Your task to perform on an android device: find snoozed emails in the gmail app Image 0: 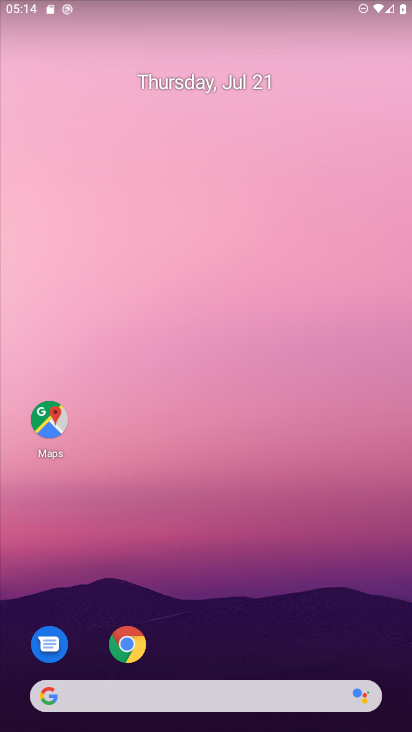
Step 0: click (149, 689)
Your task to perform on an android device: find snoozed emails in the gmail app Image 1: 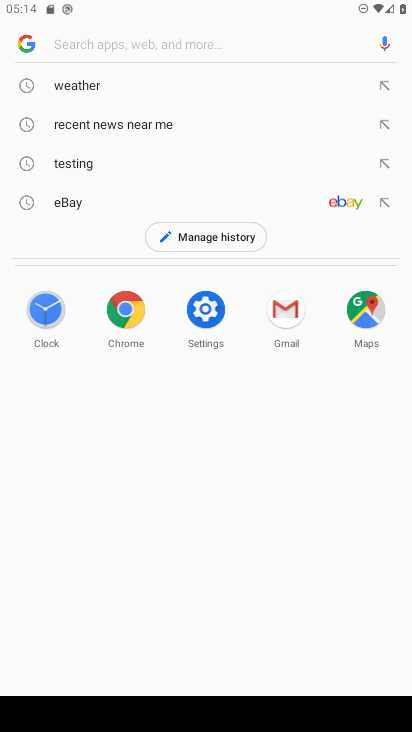
Step 1: click (26, 40)
Your task to perform on an android device: find snoozed emails in the gmail app Image 2: 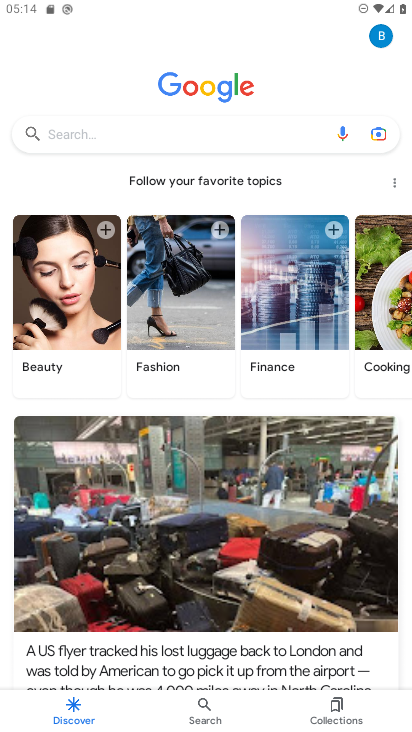
Step 2: press home button
Your task to perform on an android device: find snoozed emails in the gmail app Image 3: 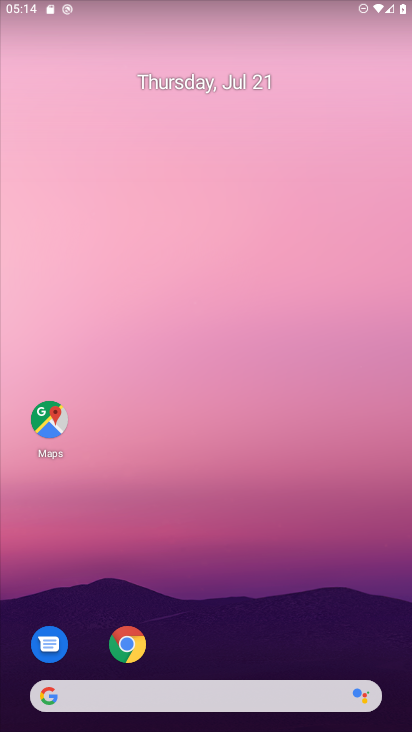
Step 3: drag from (220, 597) to (280, 71)
Your task to perform on an android device: find snoozed emails in the gmail app Image 4: 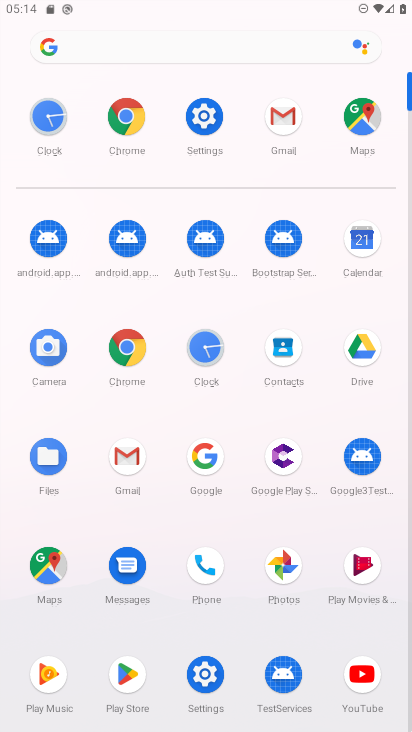
Step 4: click (283, 127)
Your task to perform on an android device: find snoozed emails in the gmail app Image 5: 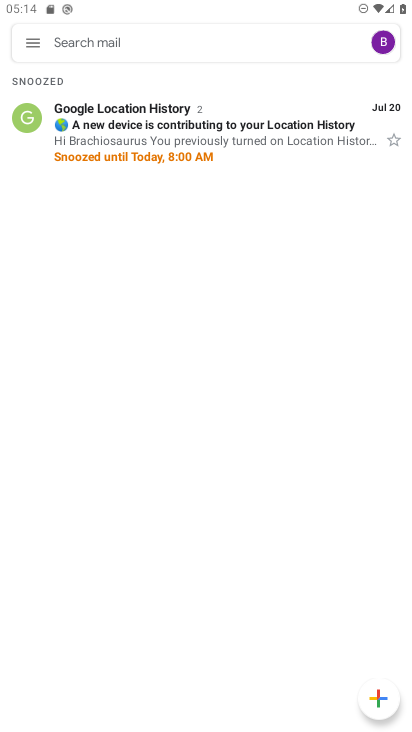
Step 5: click (41, 49)
Your task to perform on an android device: find snoozed emails in the gmail app Image 6: 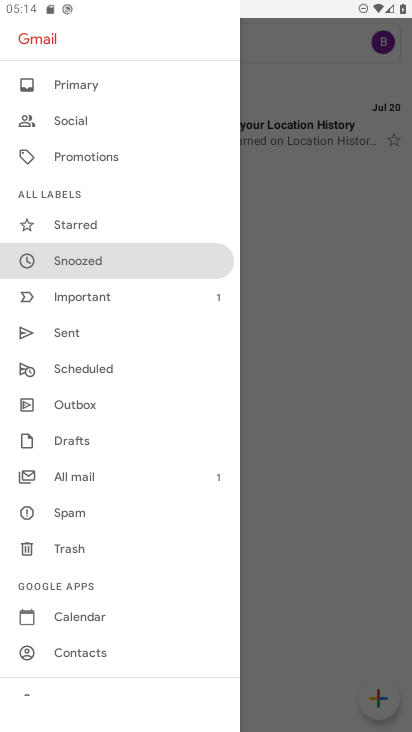
Step 6: click (80, 268)
Your task to perform on an android device: find snoozed emails in the gmail app Image 7: 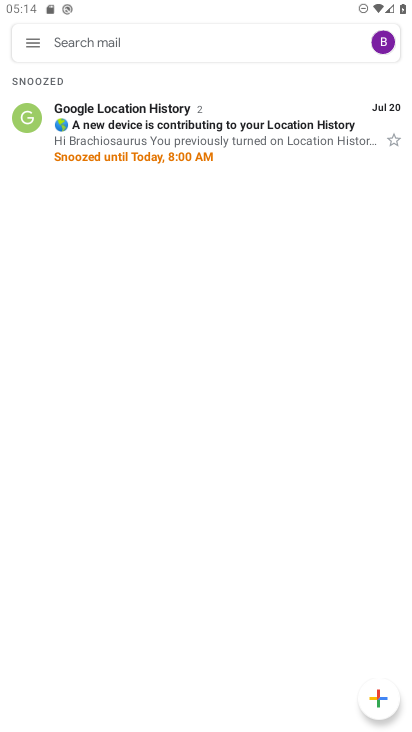
Step 7: task complete